Your task to perform on an android device: Do I have any events tomorrow? Image 0: 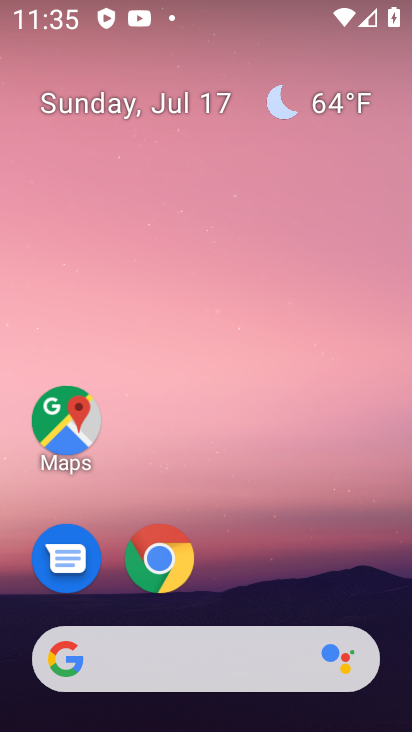
Step 0: drag from (350, 574) to (352, 57)
Your task to perform on an android device: Do I have any events tomorrow? Image 1: 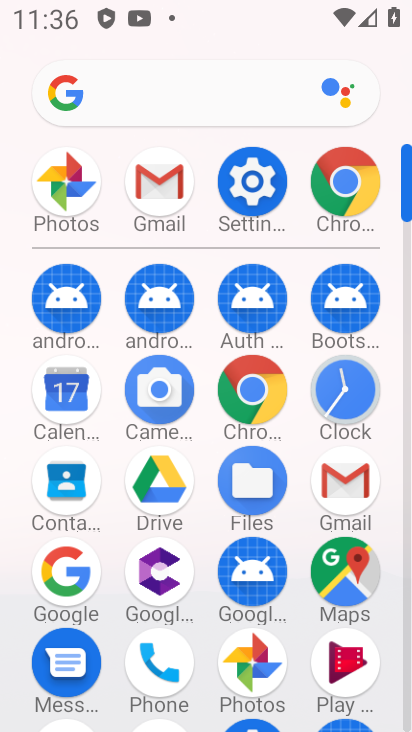
Step 1: click (70, 419)
Your task to perform on an android device: Do I have any events tomorrow? Image 2: 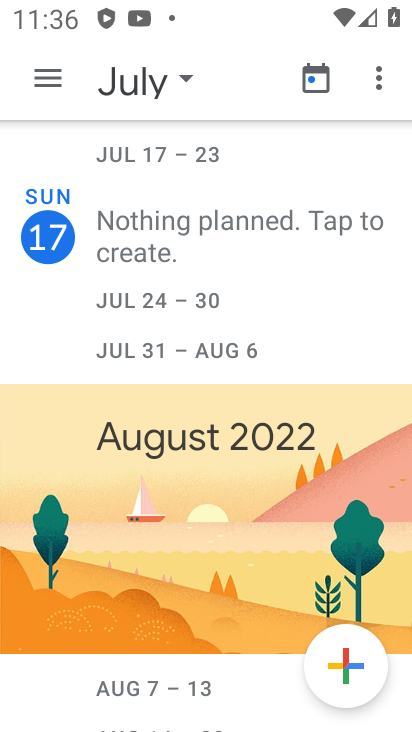
Step 2: click (183, 78)
Your task to perform on an android device: Do I have any events tomorrow? Image 3: 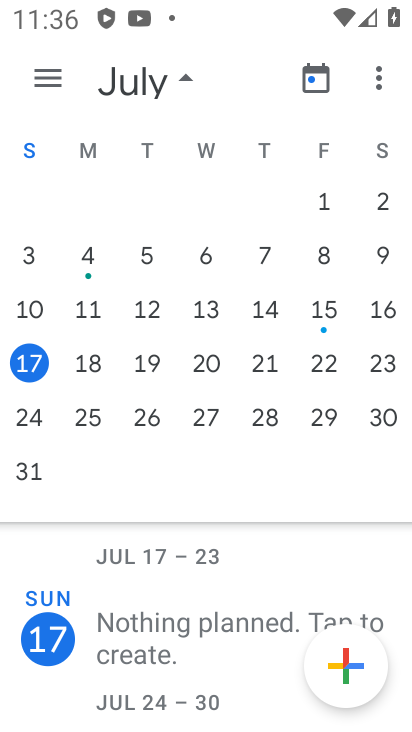
Step 3: click (140, 359)
Your task to perform on an android device: Do I have any events tomorrow? Image 4: 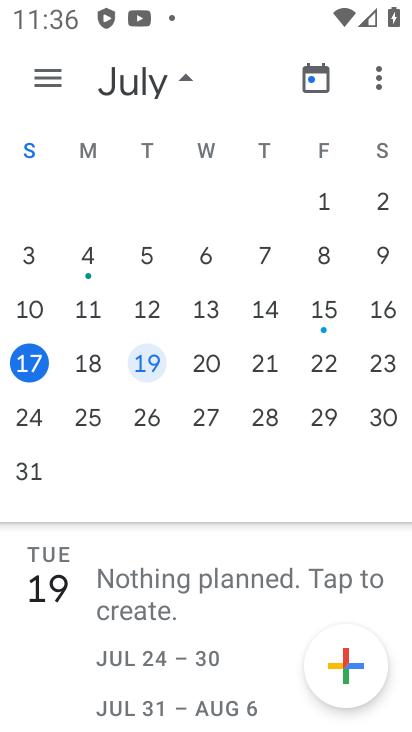
Step 4: task complete